Your task to perform on an android device: turn vacation reply on in the gmail app Image 0: 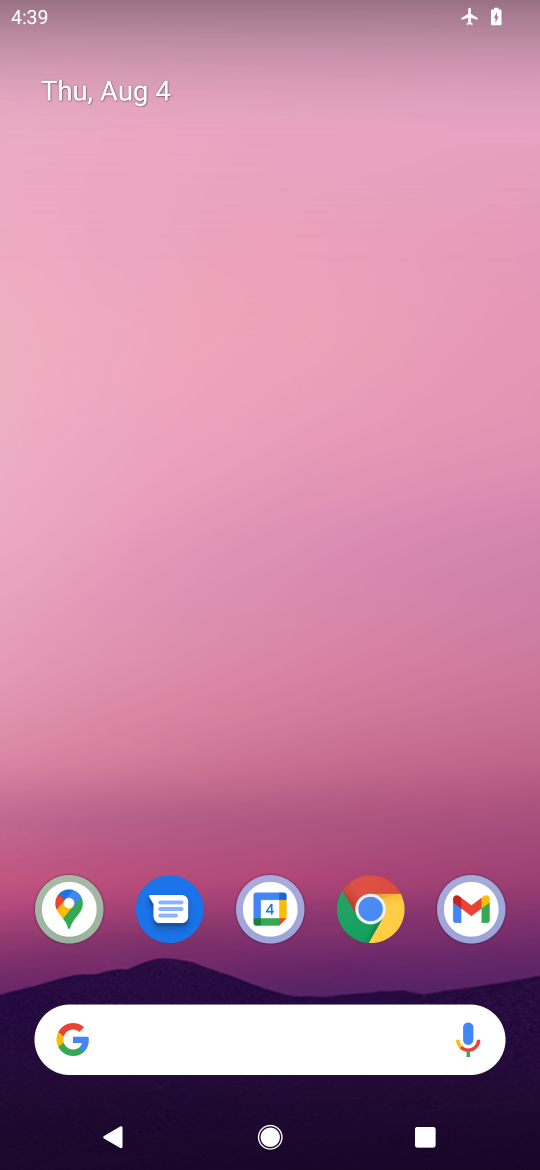
Step 0: press home button
Your task to perform on an android device: turn vacation reply on in the gmail app Image 1: 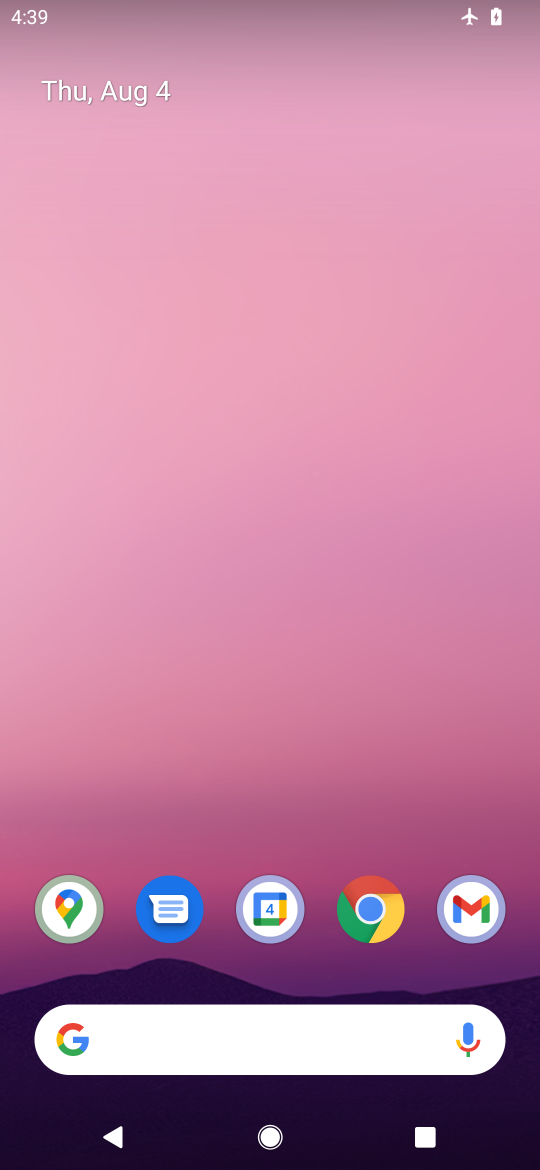
Step 1: press home button
Your task to perform on an android device: turn vacation reply on in the gmail app Image 2: 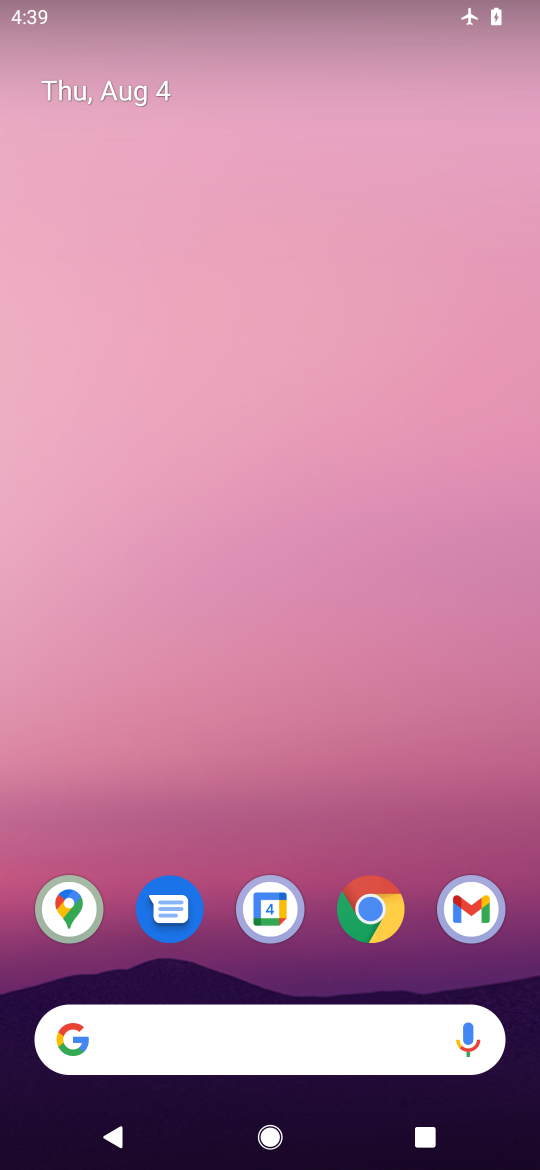
Step 2: drag from (269, 841) to (182, 155)
Your task to perform on an android device: turn vacation reply on in the gmail app Image 3: 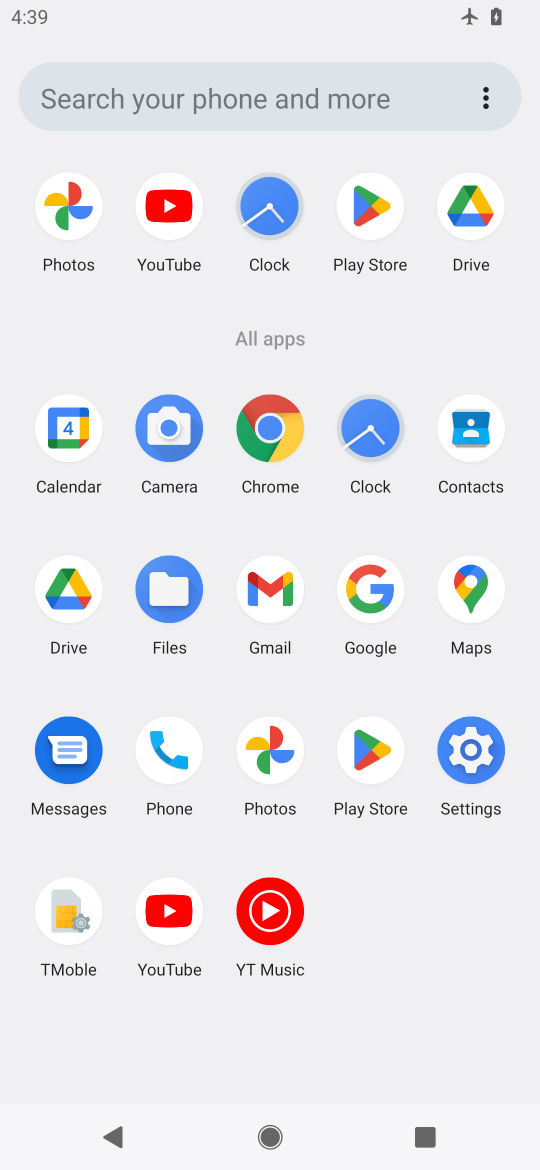
Step 3: click (278, 605)
Your task to perform on an android device: turn vacation reply on in the gmail app Image 4: 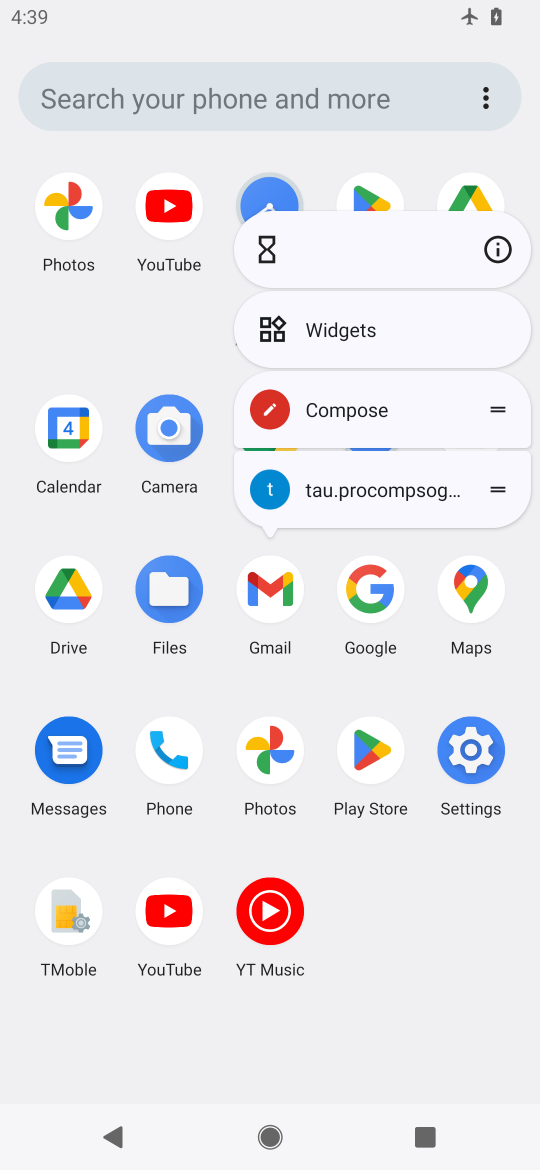
Step 4: click (276, 590)
Your task to perform on an android device: turn vacation reply on in the gmail app Image 5: 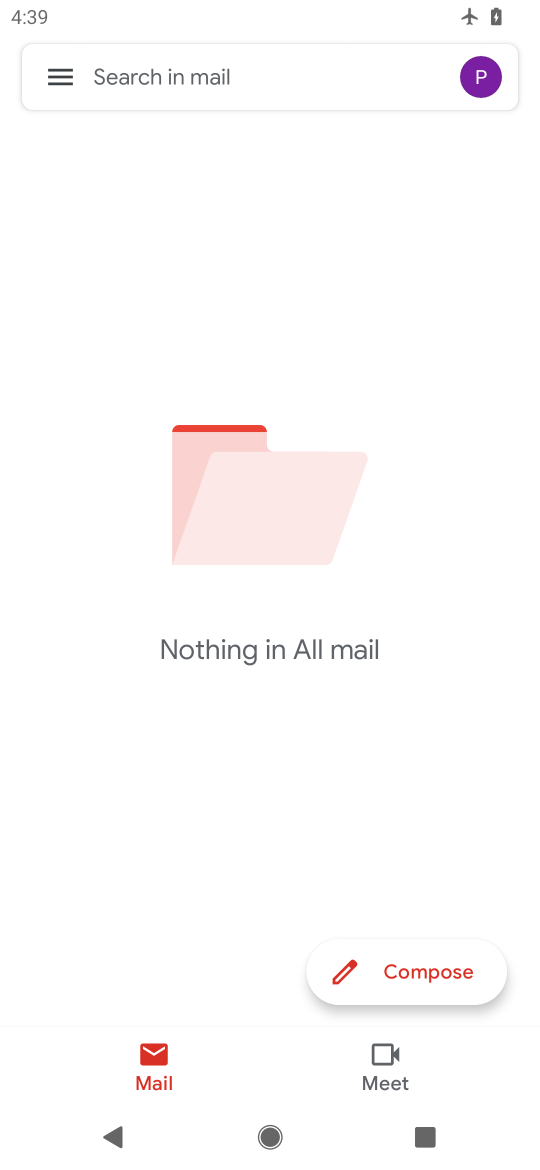
Step 5: click (62, 76)
Your task to perform on an android device: turn vacation reply on in the gmail app Image 6: 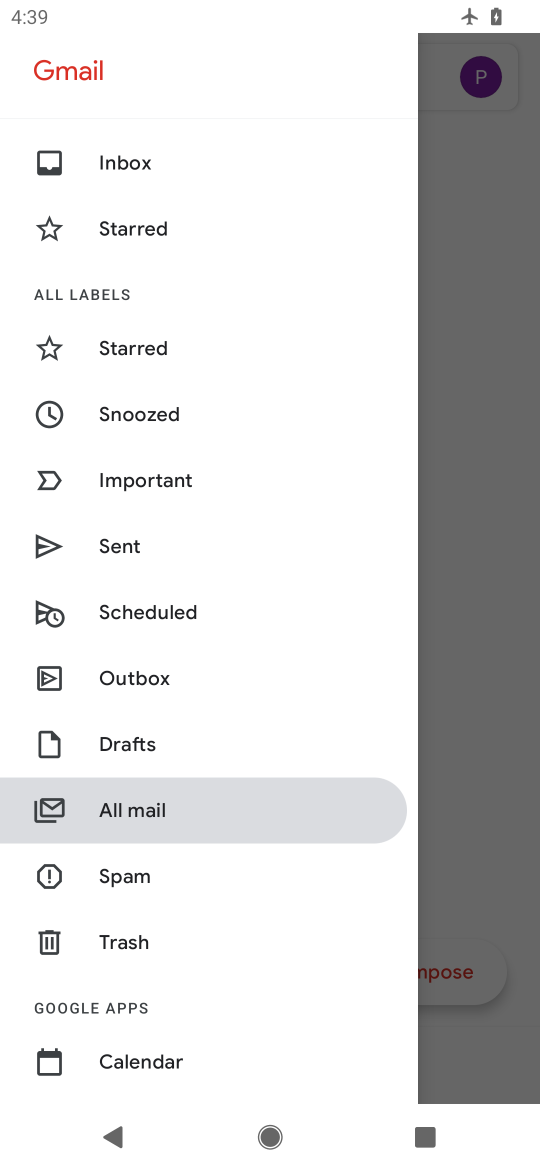
Step 6: drag from (186, 1019) to (156, 289)
Your task to perform on an android device: turn vacation reply on in the gmail app Image 7: 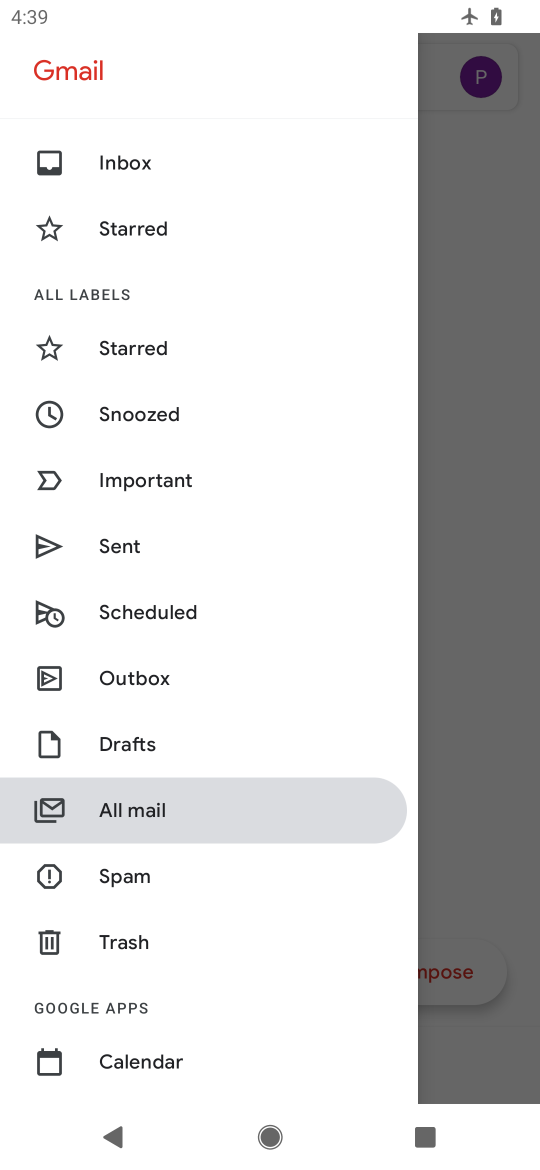
Step 7: drag from (177, 1003) to (159, 459)
Your task to perform on an android device: turn vacation reply on in the gmail app Image 8: 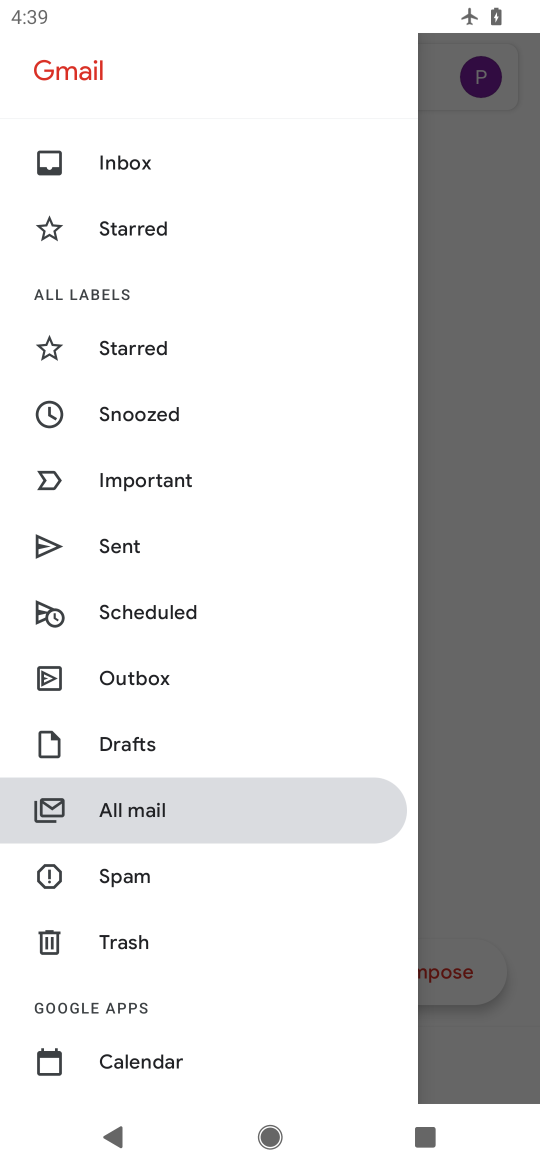
Step 8: drag from (209, 1009) to (189, 398)
Your task to perform on an android device: turn vacation reply on in the gmail app Image 9: 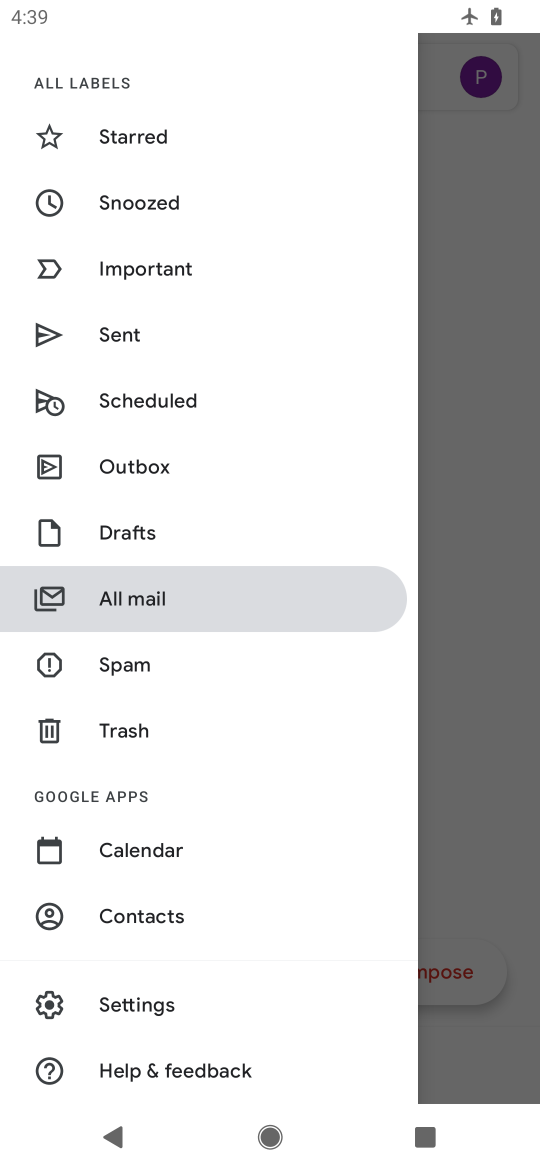
Step 9: click (158, 1006)
Your task to perform on an android device: turn vacation reply on in the gmail app Image 10: 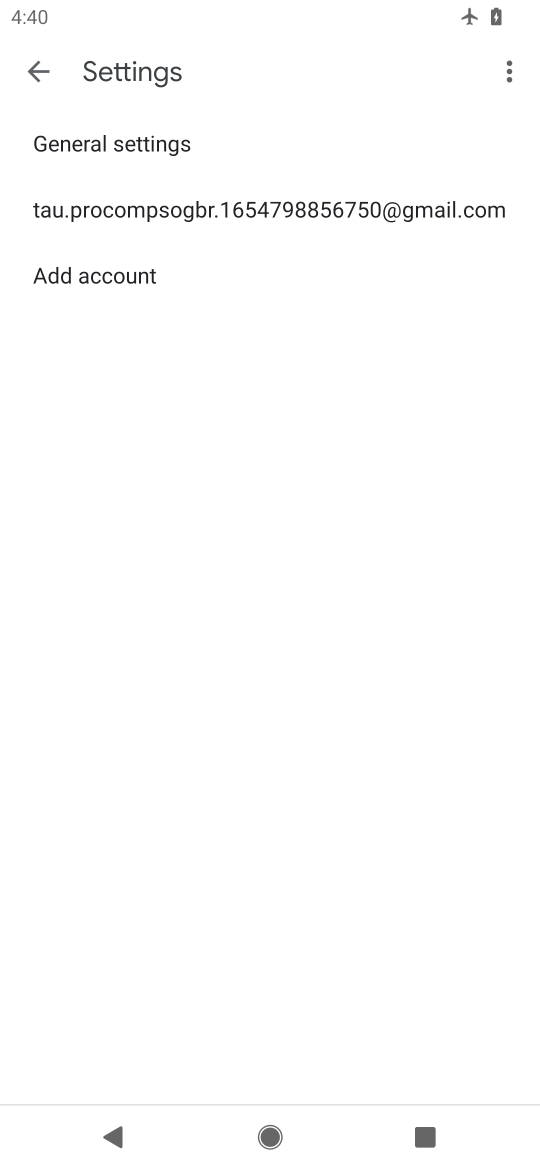
Step 10: click (99, 211)
Your task to perform on an android device: turn vacation reply on in the gmail app Image 11: 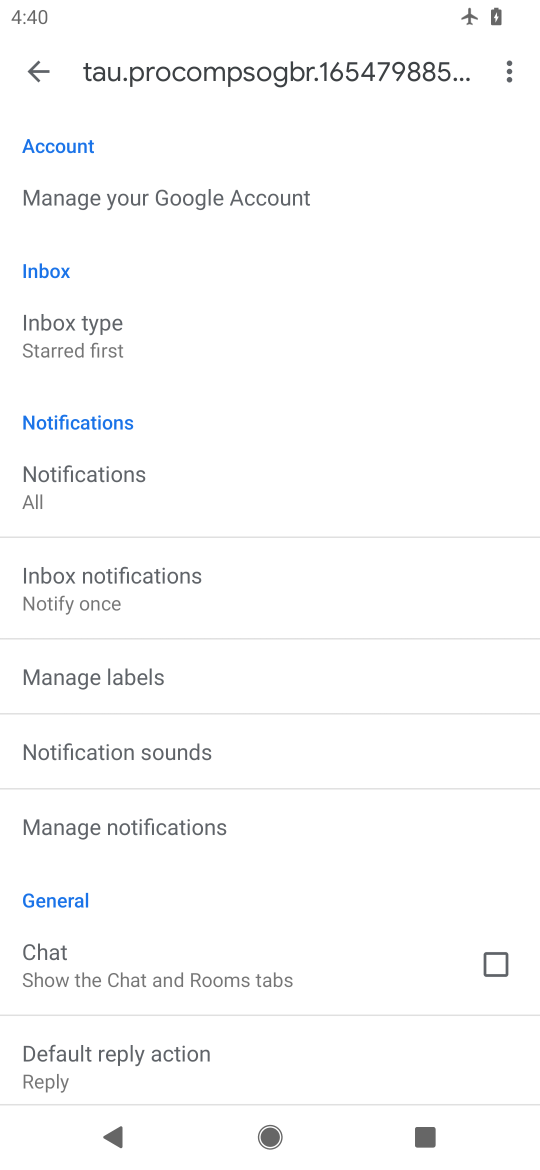
Step 11: drag from (154, 912) to (108, 207)
Your task to perform on an android device: turn vacation reply on in the gmail app Image 12: 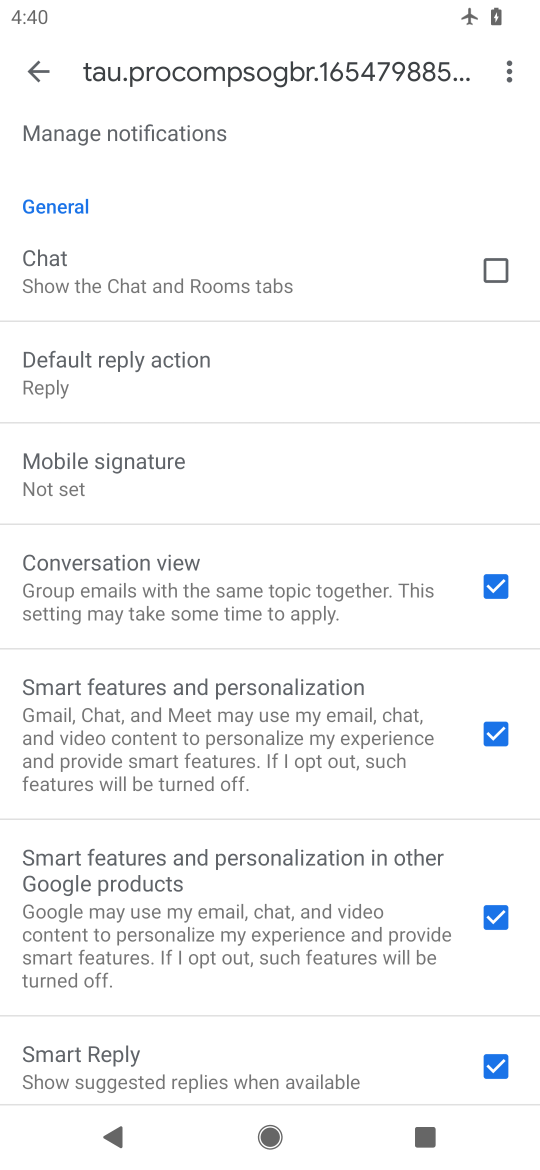
Step 12: drag from (179, 976) to (205, 382)
Your task to perform on an android device: turn vacation reply on in the gmail app Image 13: 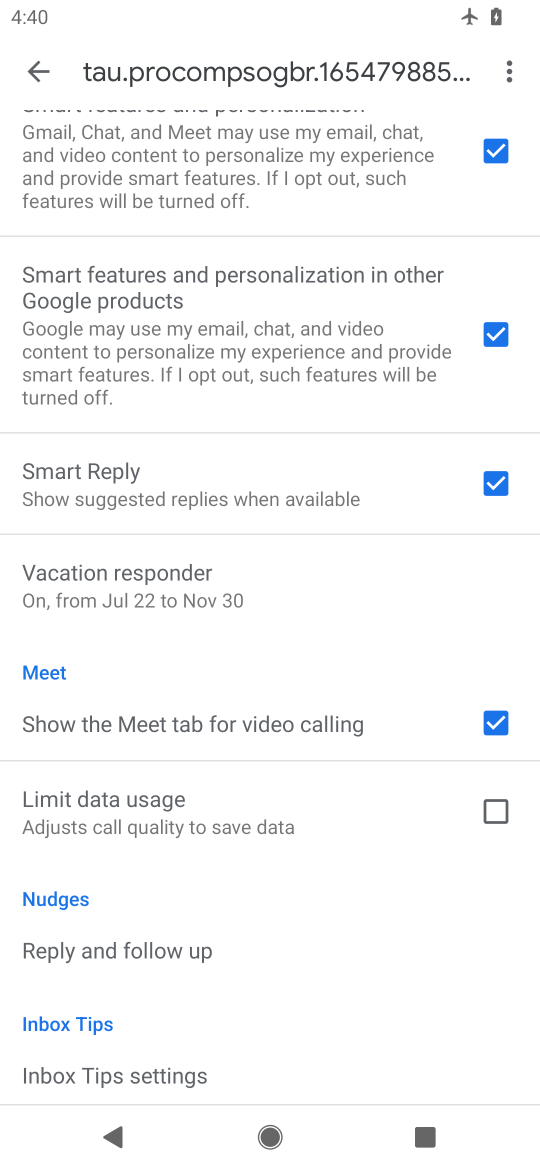
Step 13: click (215, 593)
Your task to perform on an android device: turn vacation reply on in the gmail app Image 14: 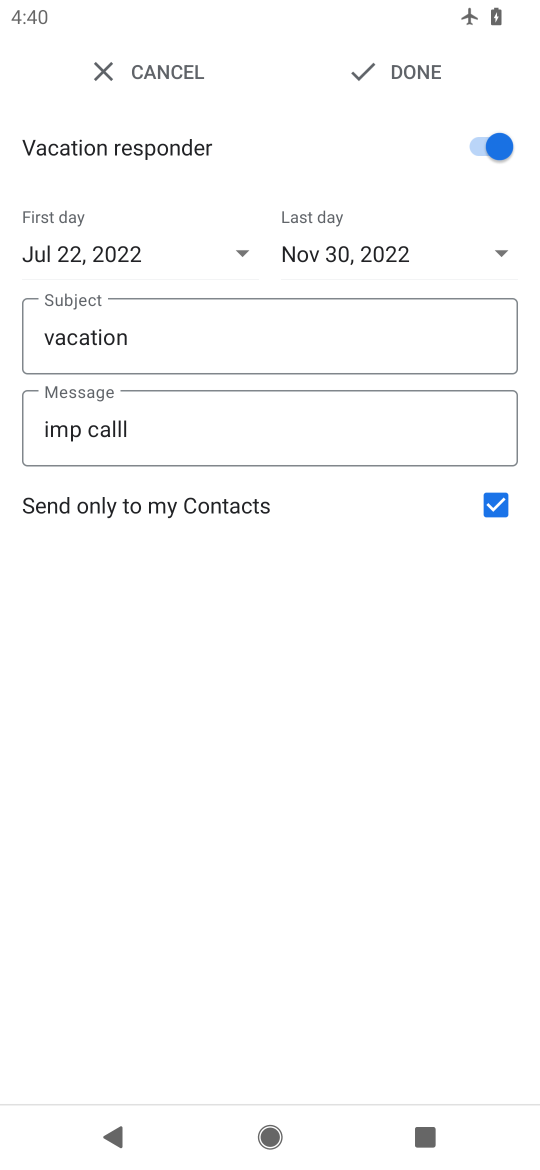
Step 14: task complete